Your task to perform on an android device: Check the news Image 0: 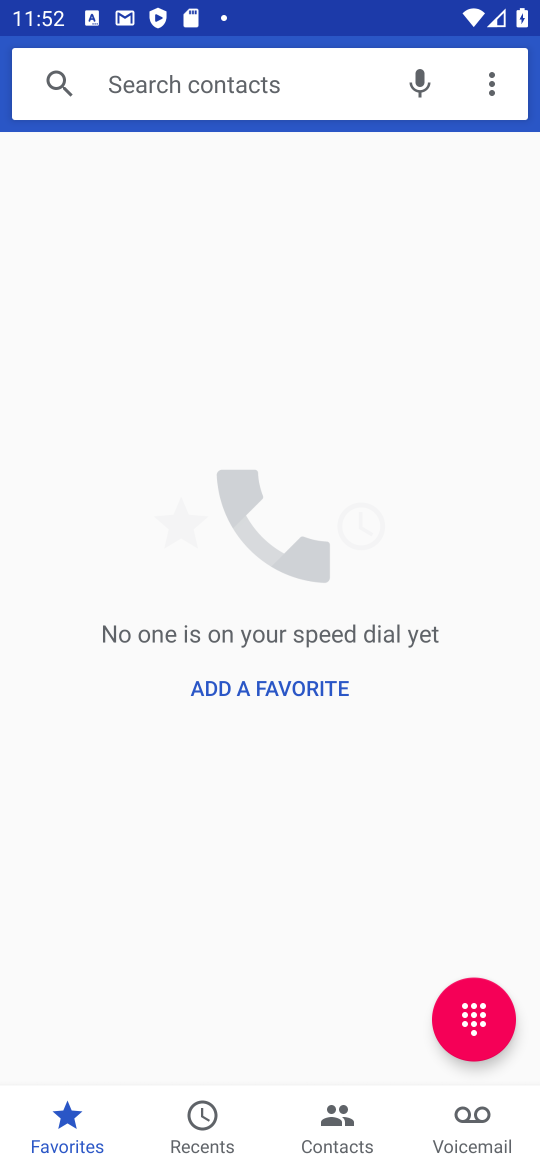
Step 0: press home button
Your task to perform on an android device: Check the news Image 1: 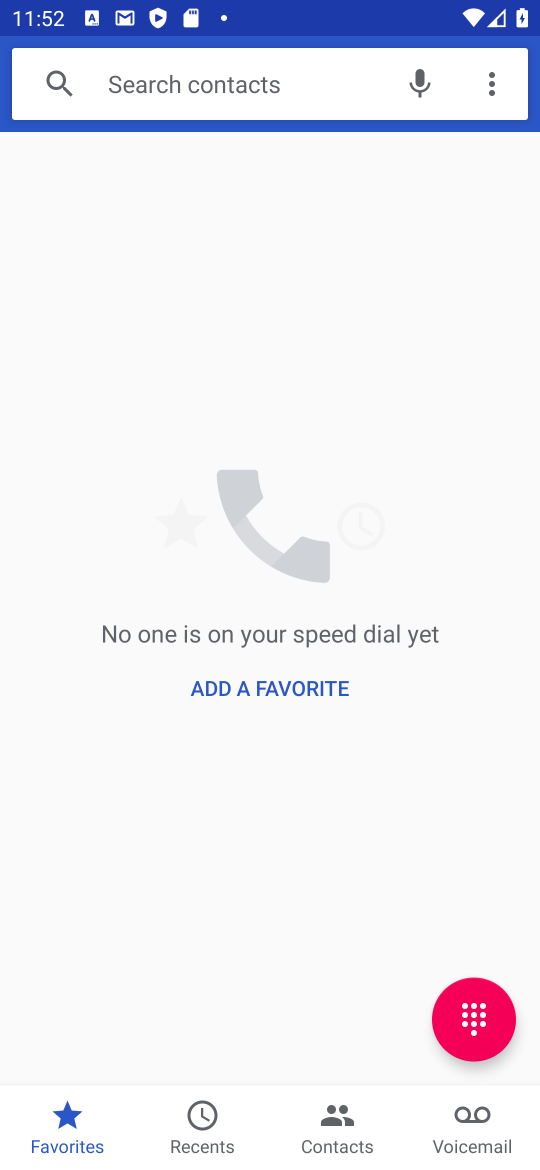
Step 1: press home button
Your task to perform on an android device: Check the news Image 2: 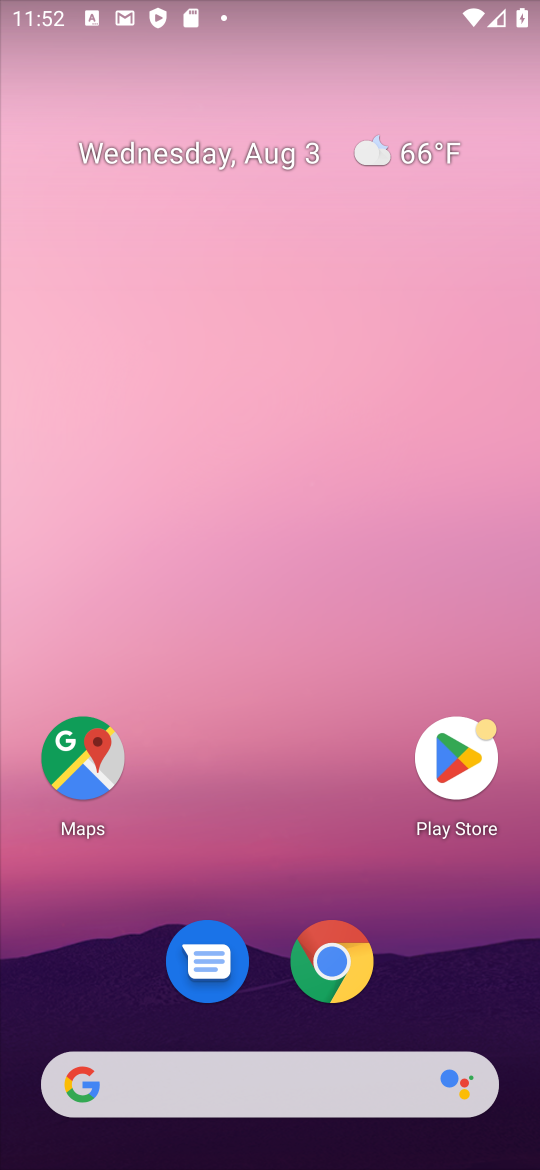
Step 2: click (351, 1093)
Your task to perform on an android device: Check the news Image 3: 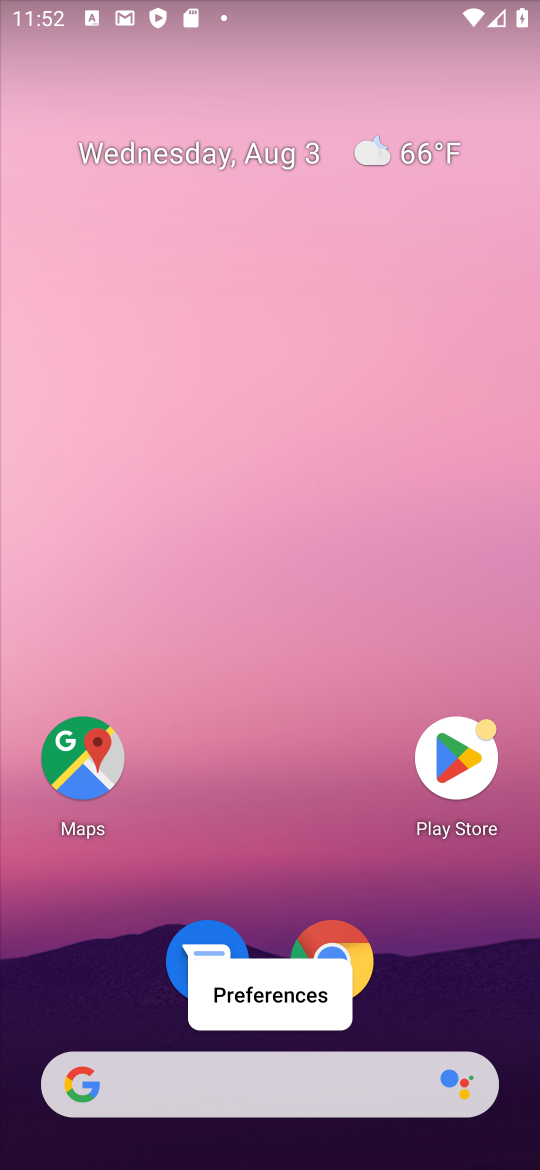
Step 3: click (349, 1096)
Your task to perform on an android device: Check the news Image 4: 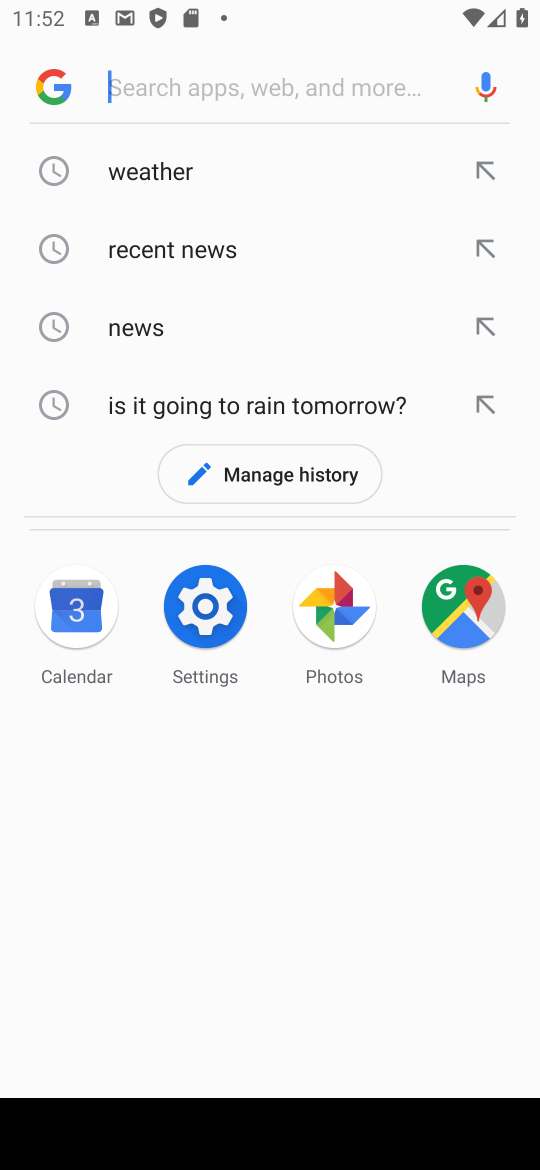
Step 4: click (153, 331)
Your task to perform on an android device: Check the news Image 5: 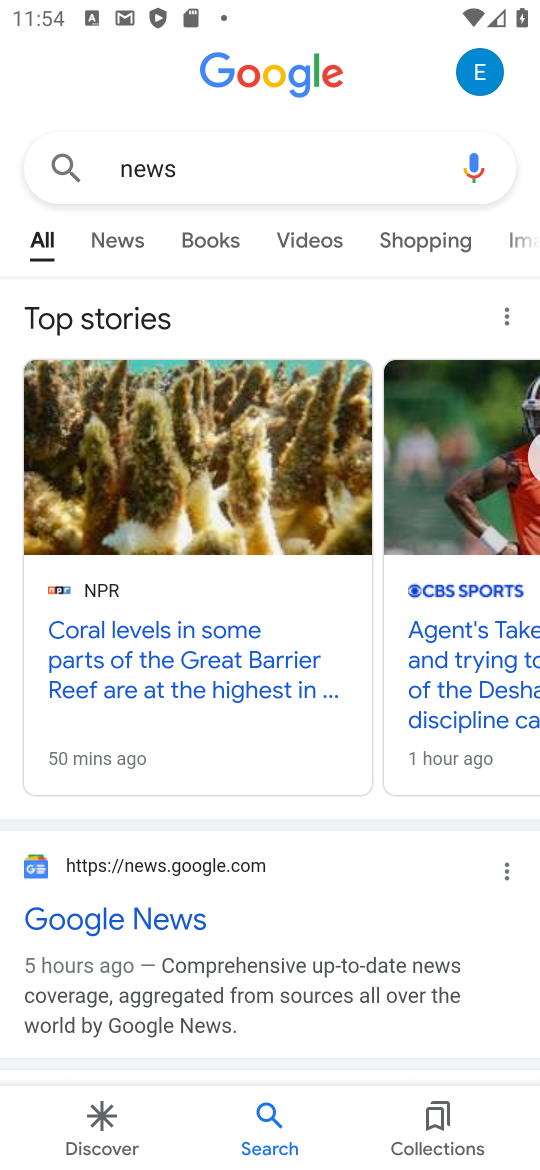
Step 5: click (130, 240)
Your task to perform on an android device: Check the news Image 6: 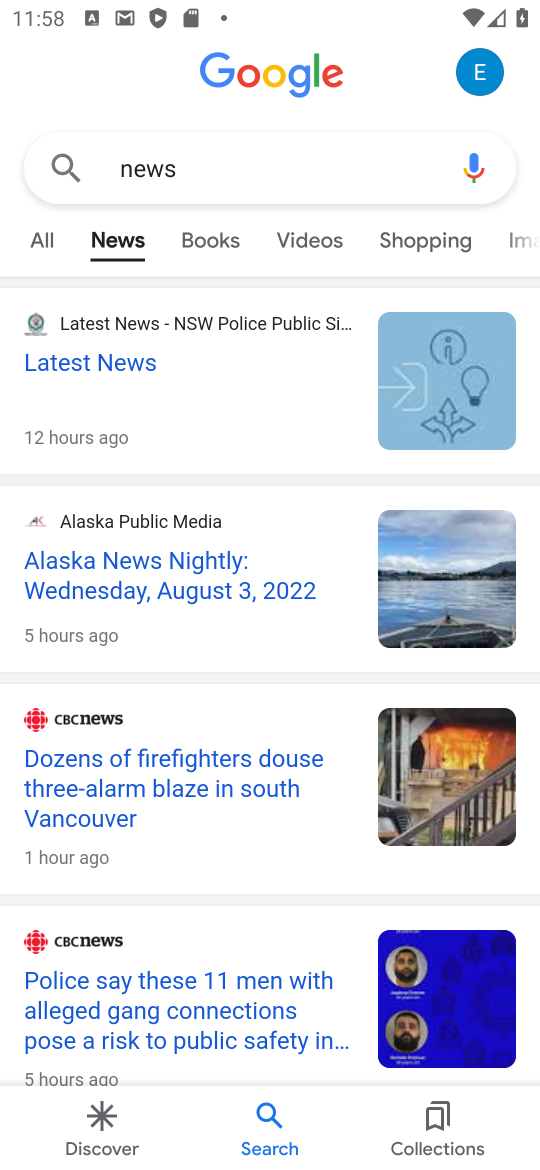
Step 6: task complete